Your task to perform on an android device: Go to Google Image 0: 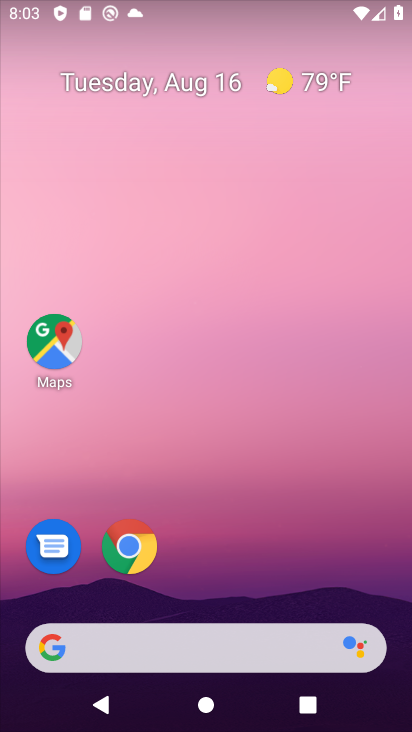
Step 0: click (190, 643)
Your task to perform on an android device: Go to Google Image 1: 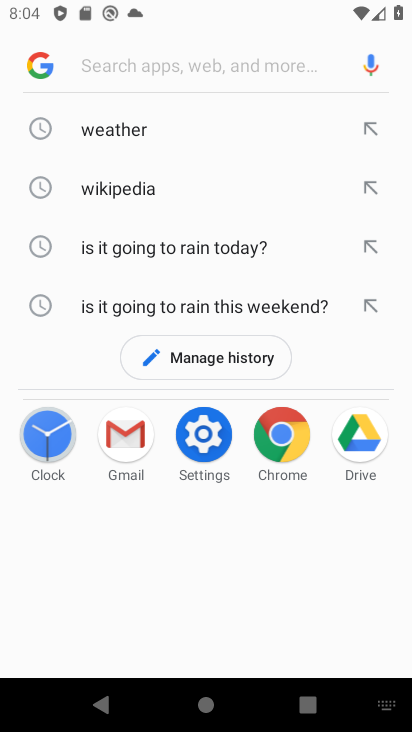
Step 1: task complete